Your task to perform on an android device: Add usb-b to the cart on costco, then select checkout. Image 0: 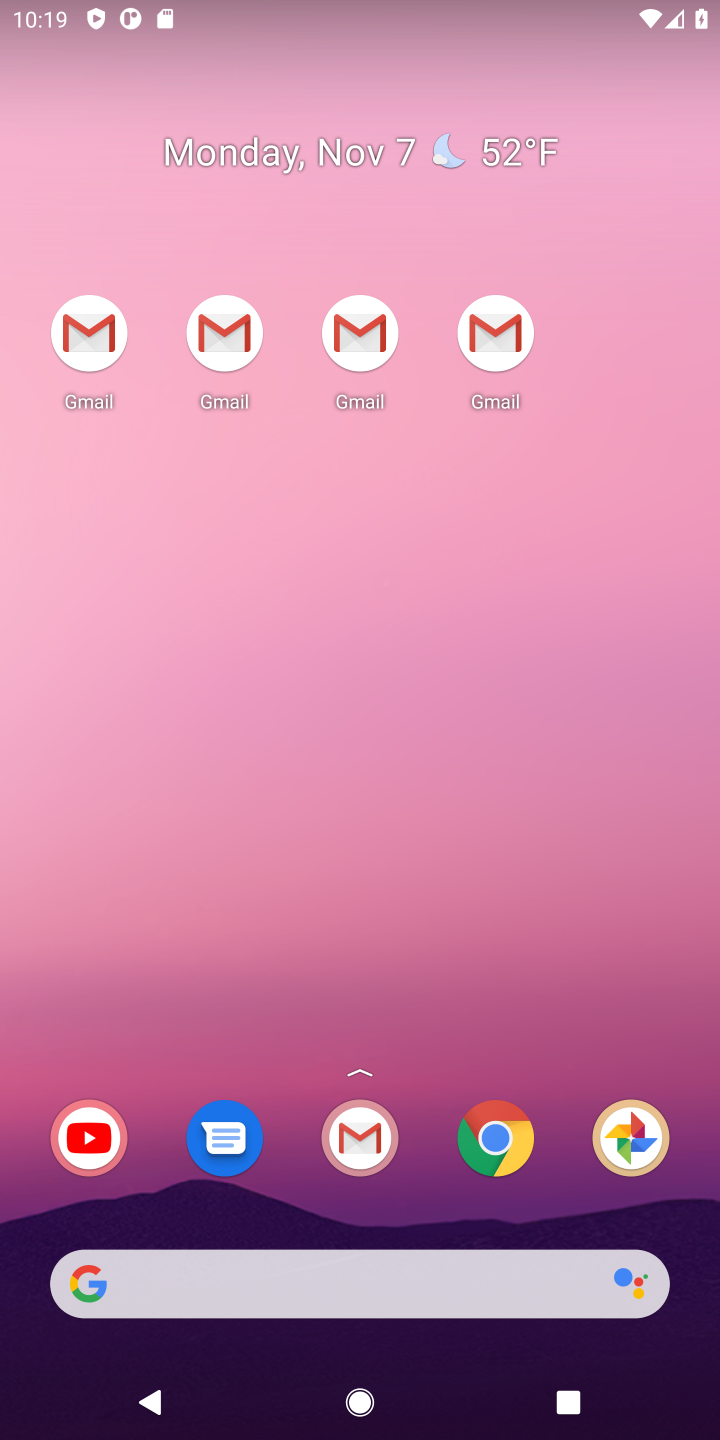
Step 0: drag from (391, 1143) to (405, 376)
Your task to perform on an android device: Add usb-b to the cart on costco, then select checkout. Image 1: 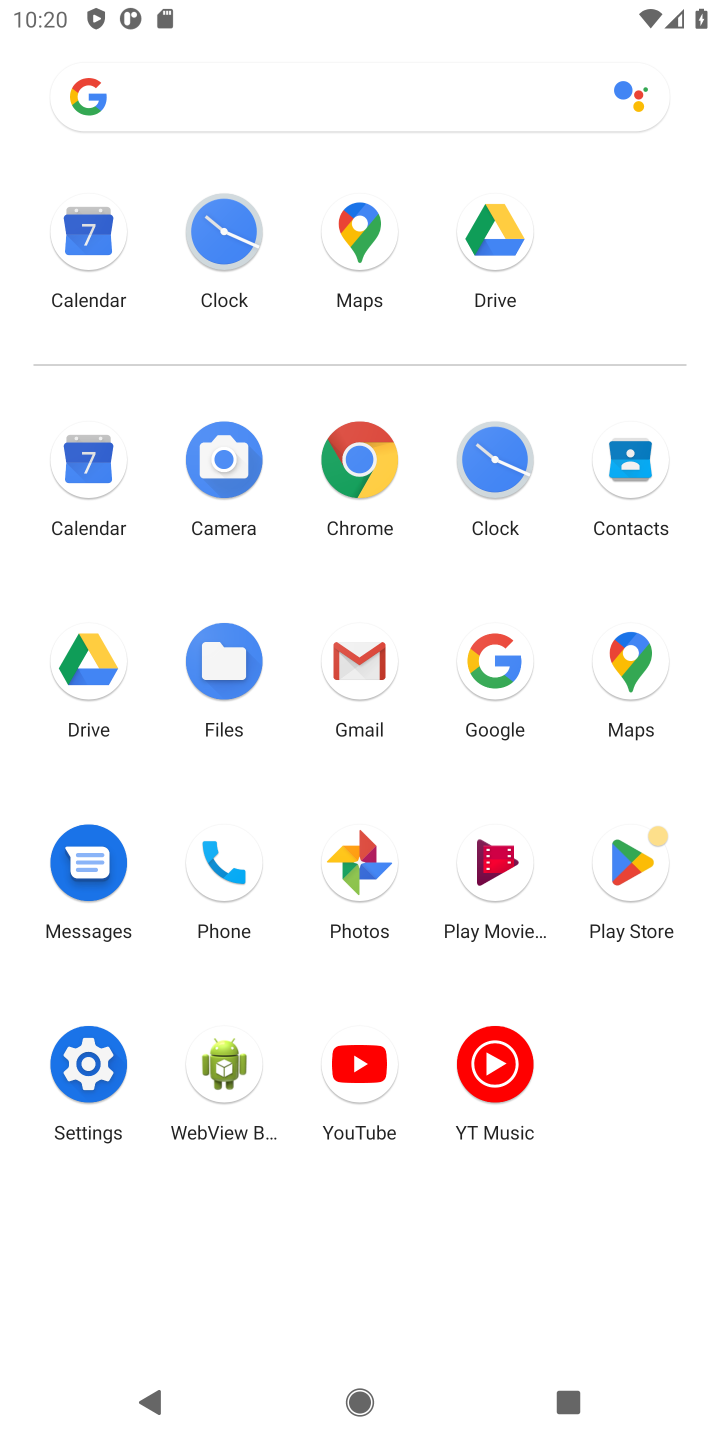
Step 1: click (480, 681)
Your task to perform on an android device: Add usb-b to the cart on costco, then select checkout. Image 2: 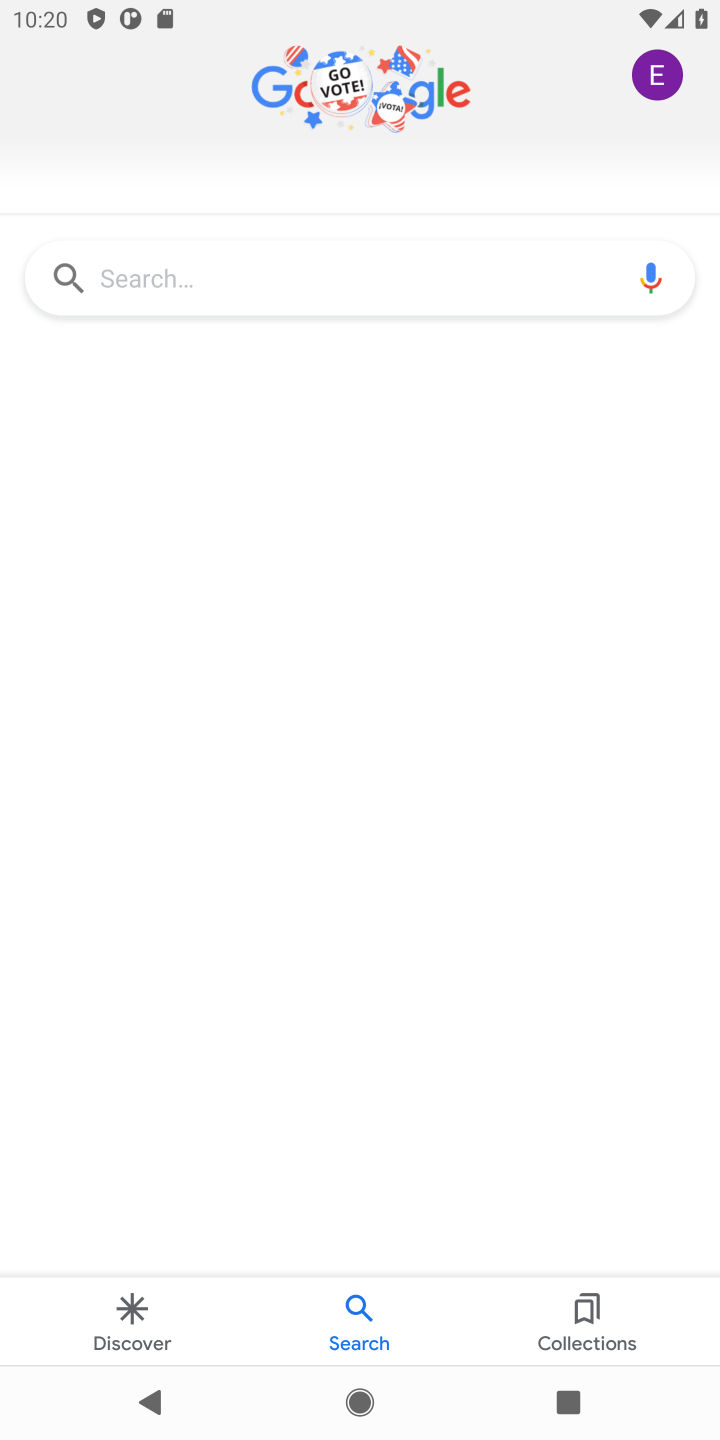
Step 2: click (332, 284)
Your task to perform on an android device: Add usb-b to the cart on costco, then select checkout. Image 3: 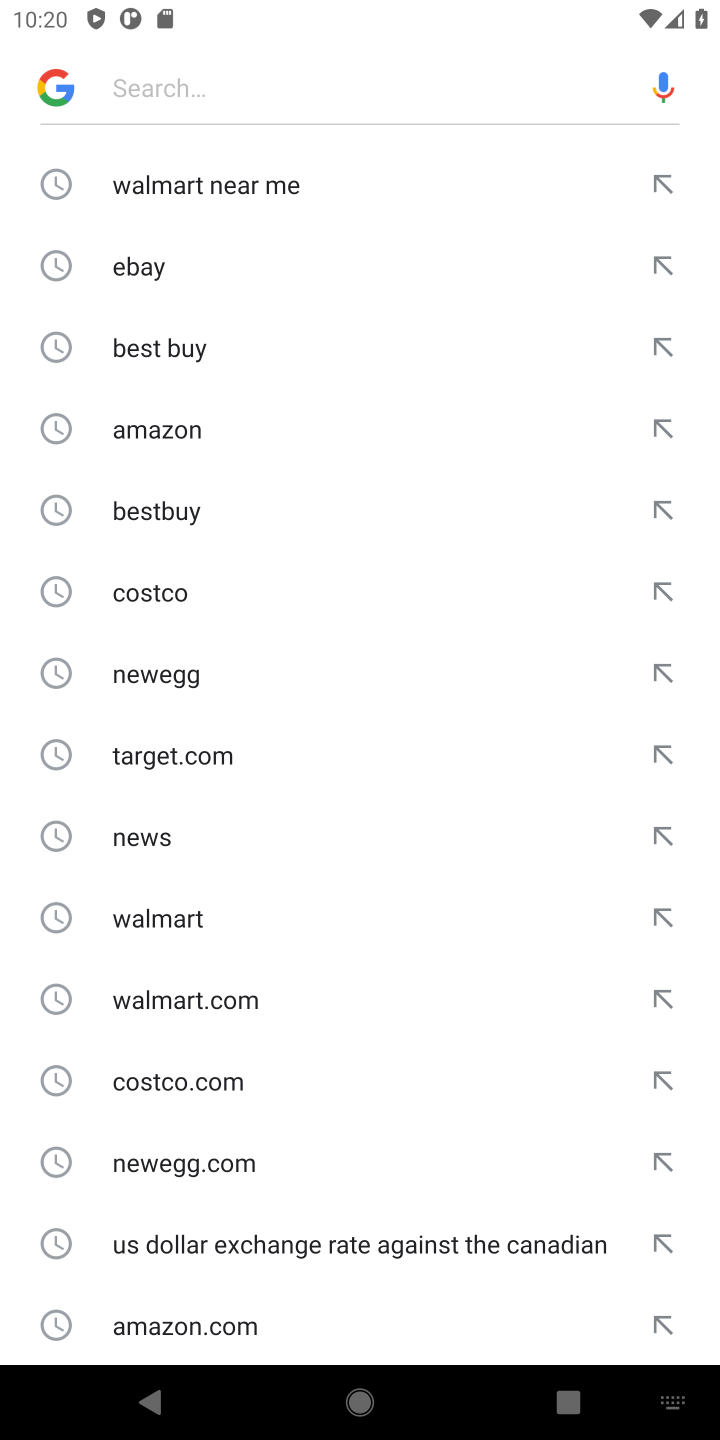
Step 3: type "costco"
Your task to perform on an android device: Add usb-b to the cart on costco, then select checkout. Image 4: 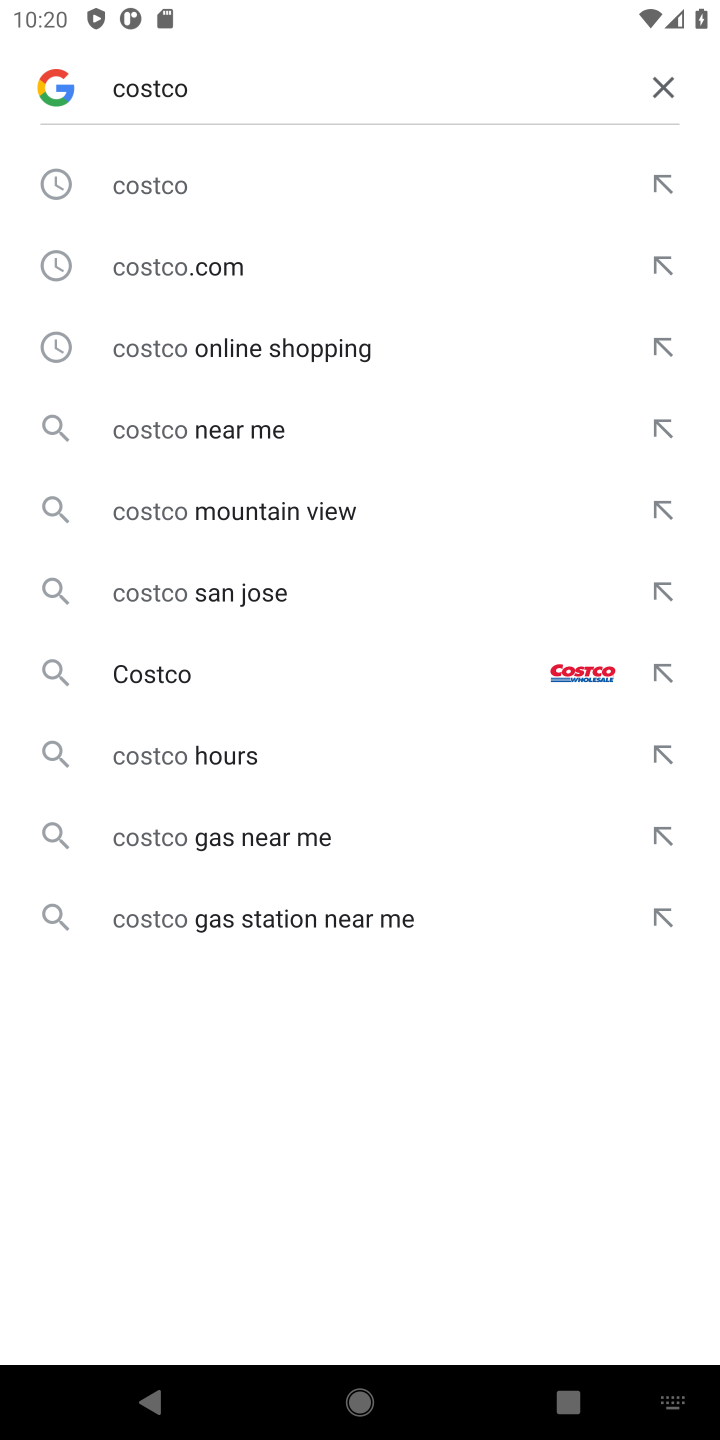
Step 4: click (172, 179)
Your task to perform on an android device: Add usb-b to the cart on costco, then select checkout. Image 5: 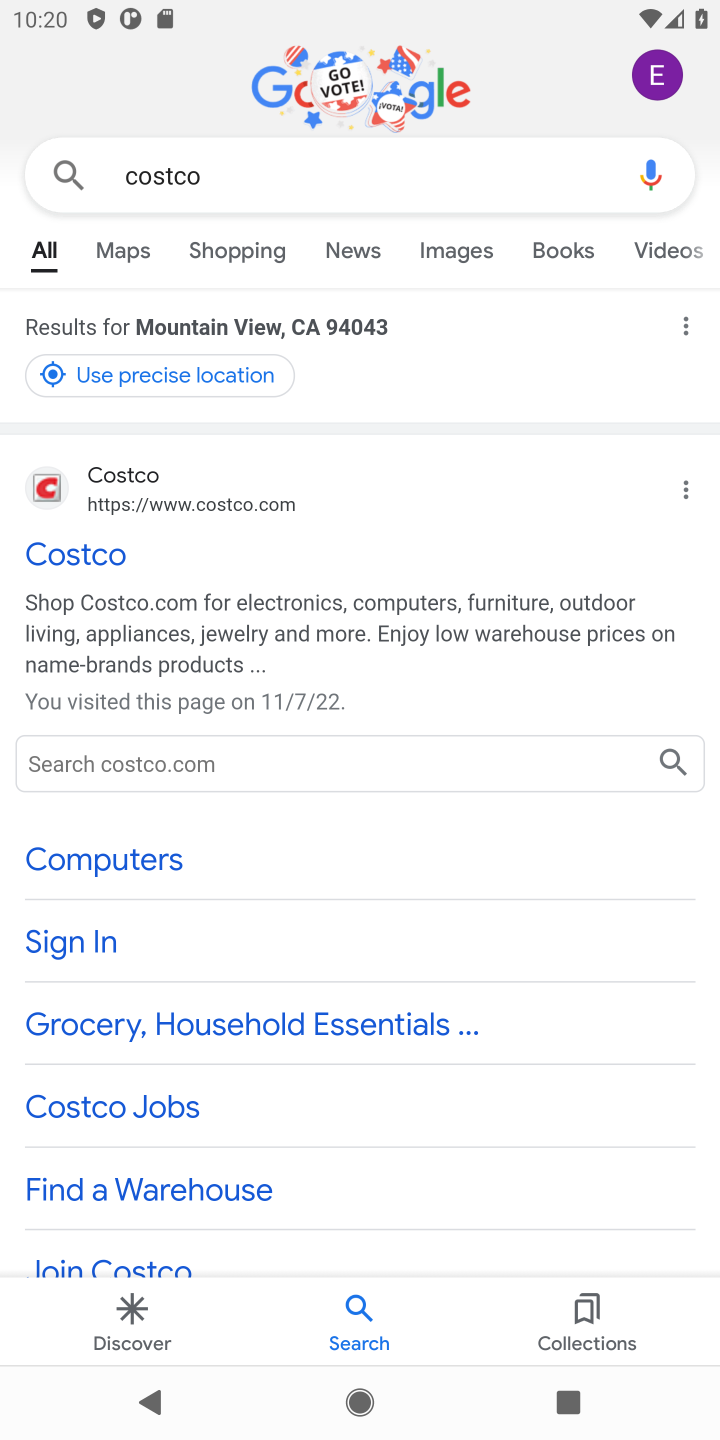
Step 5: click (83, 555)
Your task to perform on an android device: Add usb-b to the cart on costco, then select checkout. Image 6: 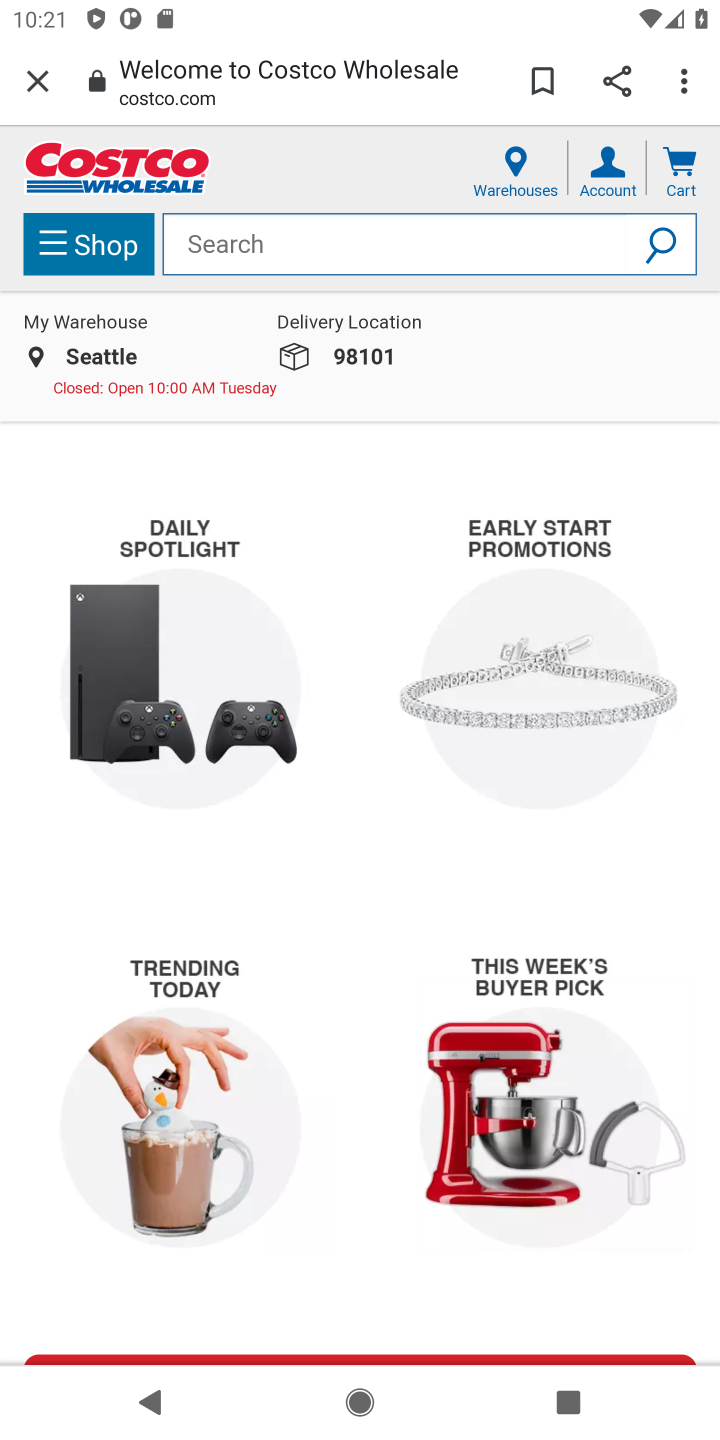
Step 6: click (334, 250)
Your task to perform on an android device: Add usb-b to the cart on costco, then select checkout. Image 7: 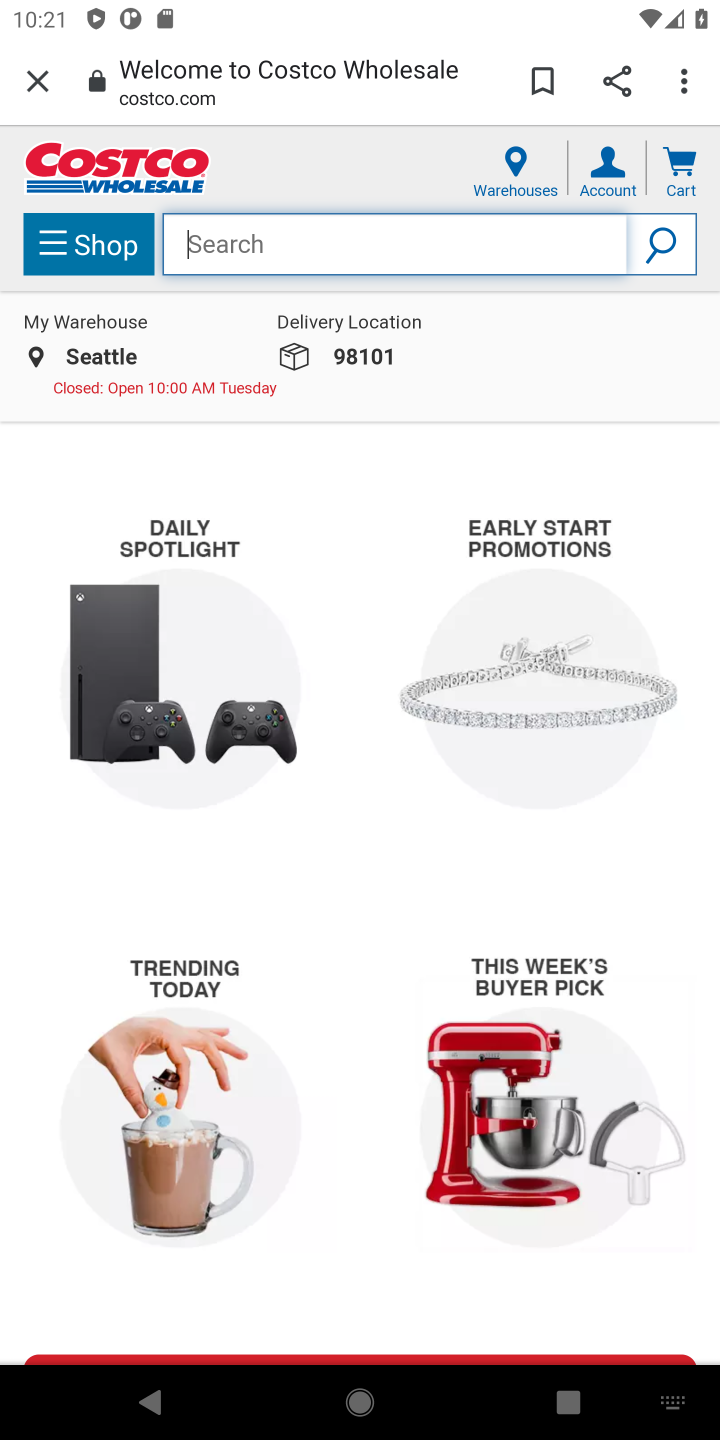
Step 7: type "costco"
Your task to perform on an android device: Add usb-b to the cart on costco, then select checkout. Image 8: 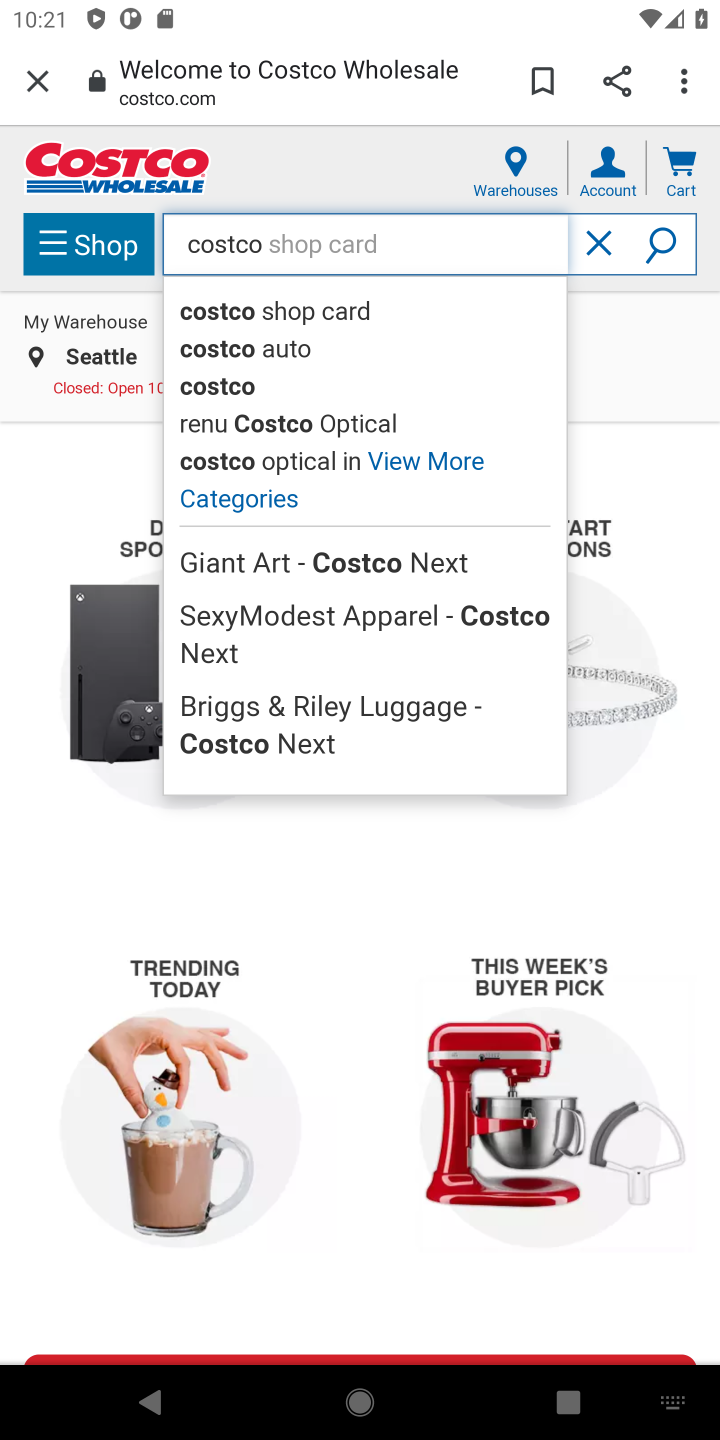
Step 8: click (606, 242)
Your task to perform on an android device: Add usb-b to the cart on costco, then select checkout. Image 9: 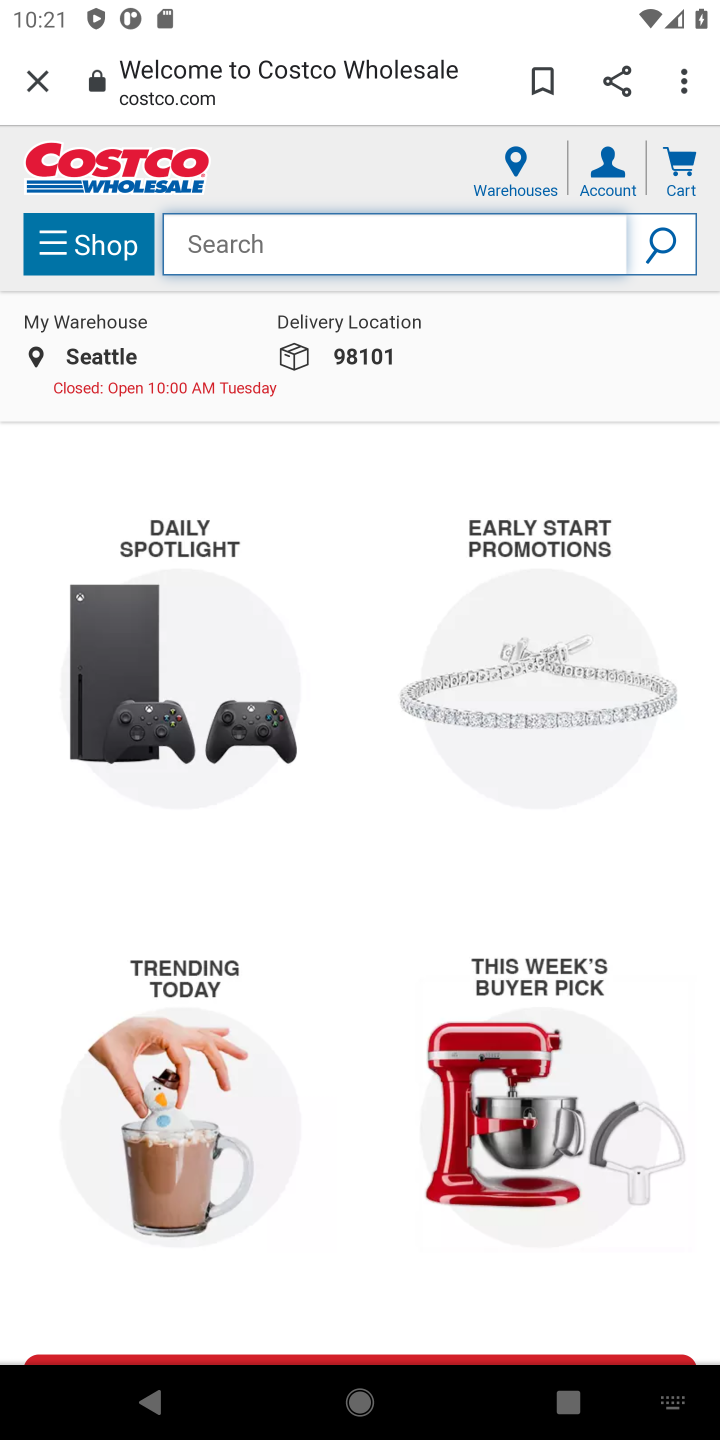
Step 9: type "usb-b"
Your task to perform on an android device: Add usb-b to the cart on costco, then select checkout. Image 10: 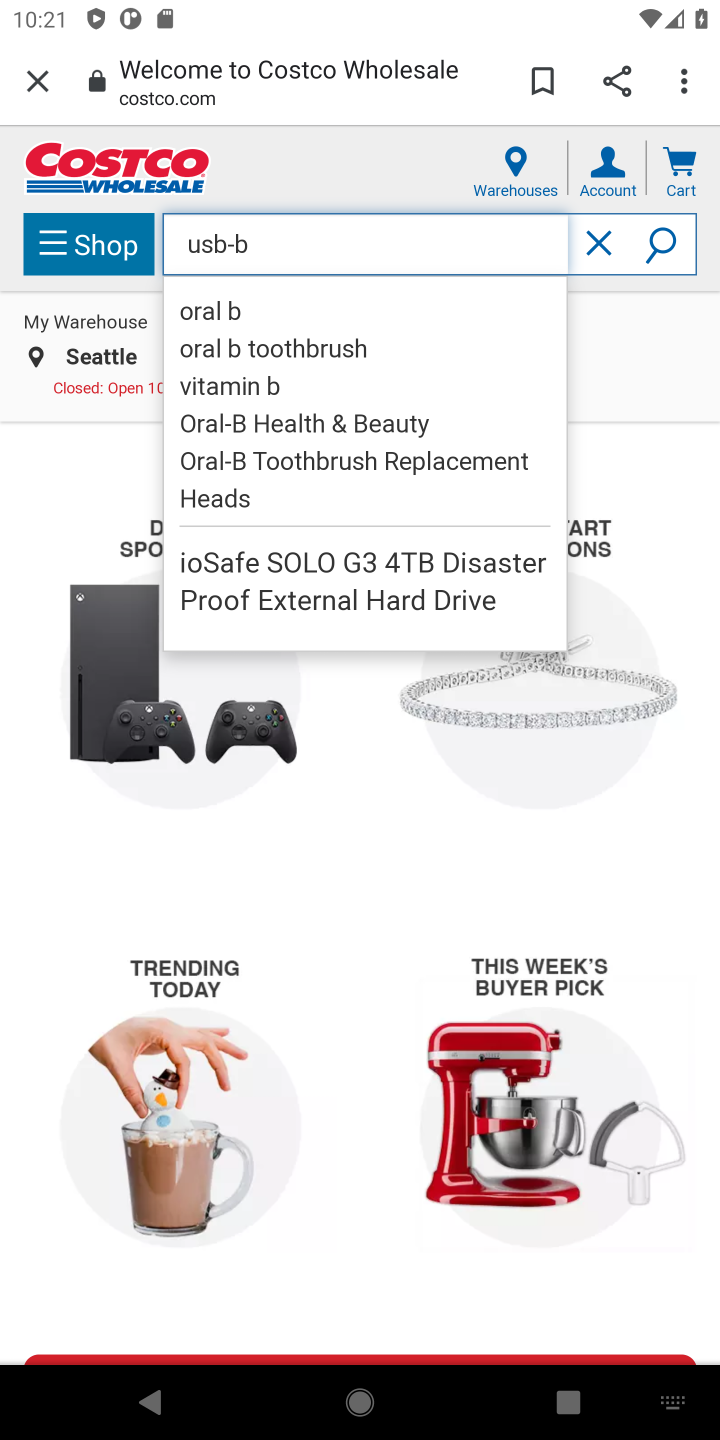
Step 10: click (668, 249)
Your task to perform on an android device: Add usb-b to the cart on costco, then select checkout. Image 11: 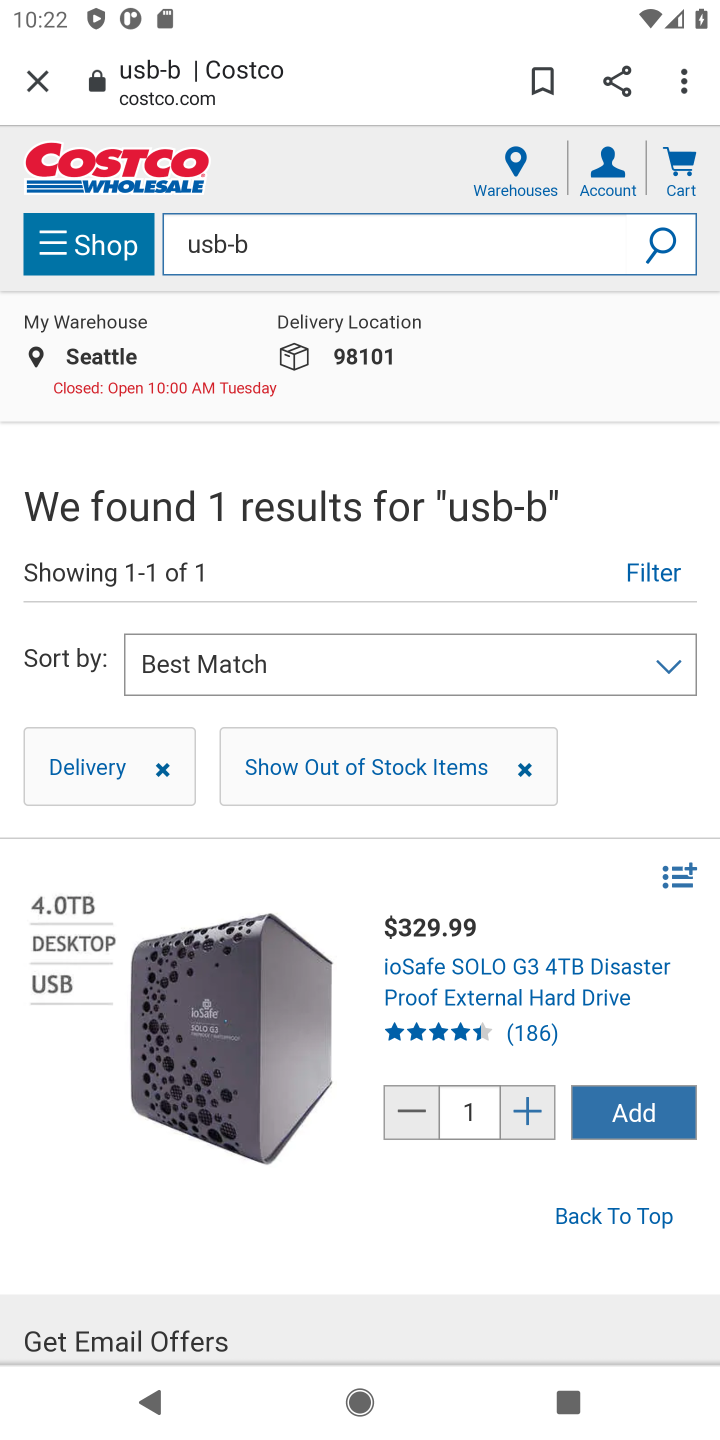
Step 11: task complete